Your task to perform on an android device: Turn off the flashlight Image 0: 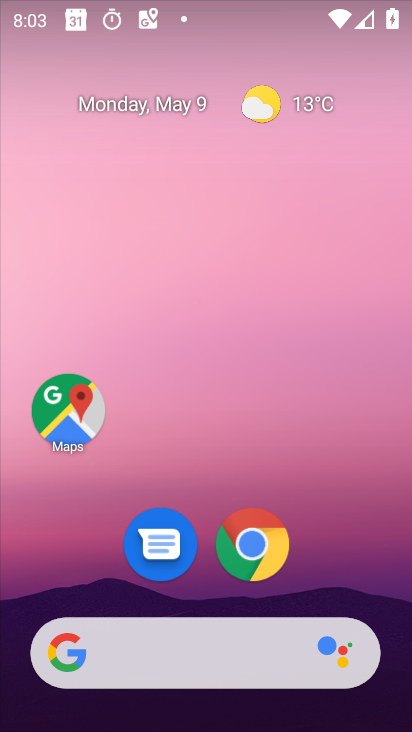
Step 0: drag from (378, 478) to (341, 7)
Your task to perform on an android device: Turn off the flashlight Image 1: 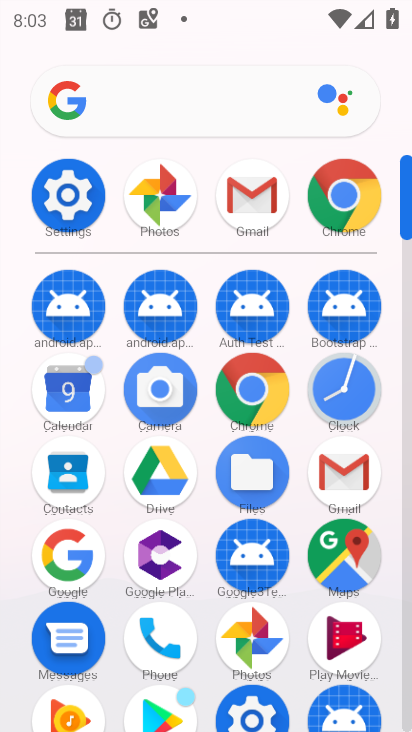
Step 1: click (68, 212)
Your task to perform on an android device: Turn off the flashlight Image 2: 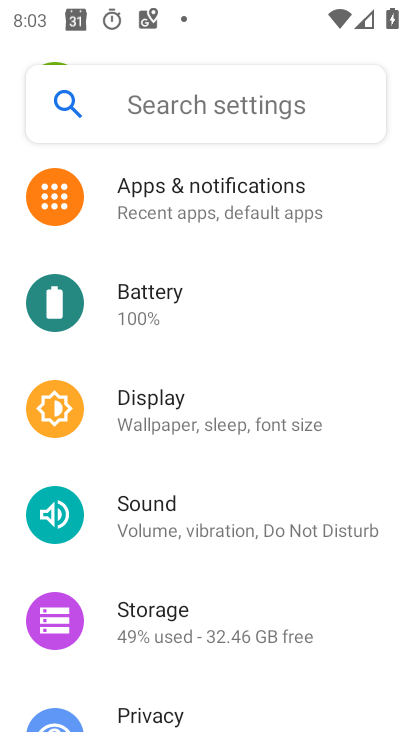
Step 2: task complete